Your task to perform on an android device: set default search engine in the chrome app Image 0: 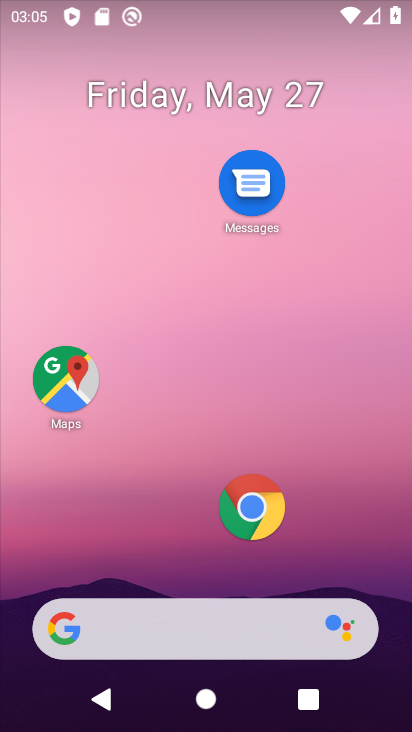
Step 0: drag from (193, 571) to (285, 168)
Your task to perform on an android device: set default search engine in the chrome app Image 1: 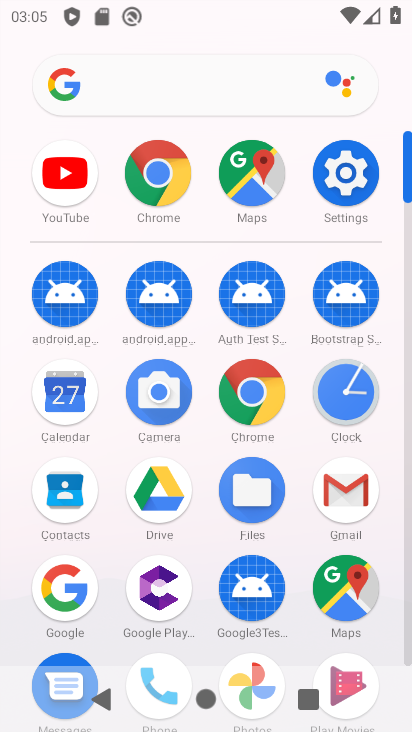
Step 1: click (247, 392)
Your task to perform on an android device: set default search engine in the chrome app Image 2: 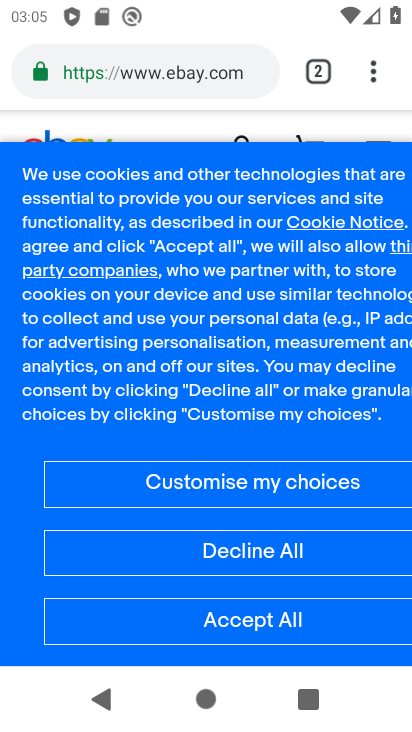
Step 2: drag from (370, 71) to (132, 507)
Your task to perform on an android device: set default search engine in the chrome app Image 3: 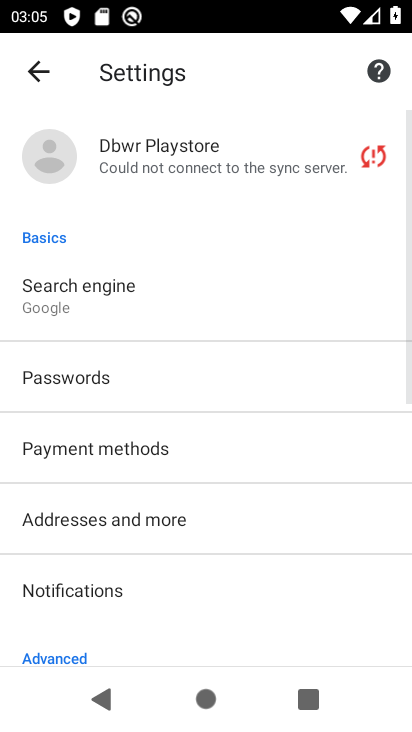
Step 3: click (133, 293)
Your task to perform on an android device: set default search engine in the chrome app Image 4: 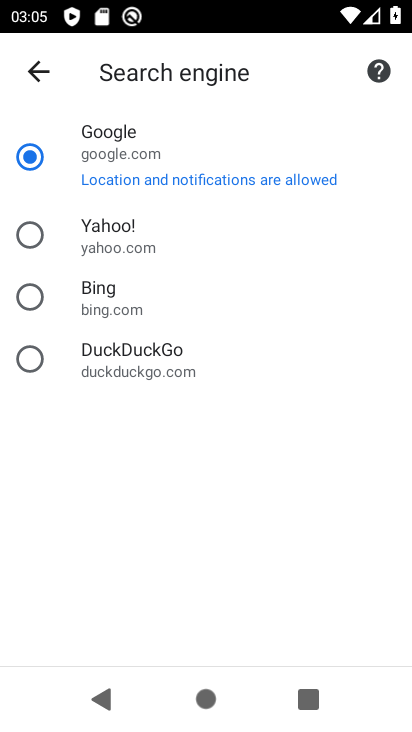
Step 4: task complete